Your task to perform on an android device: Open Google Image 0: 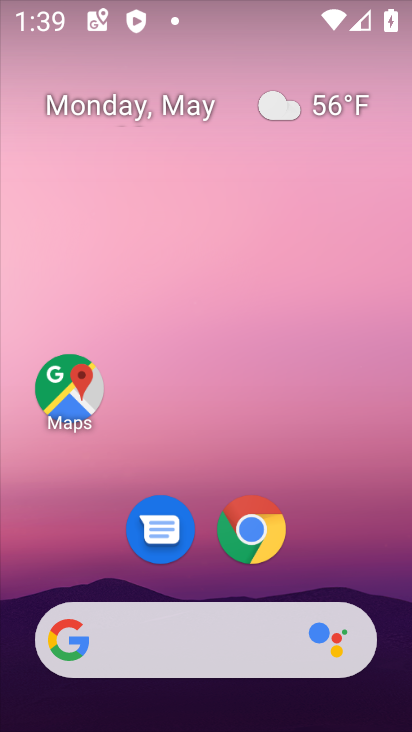
Step 0: drag from (315, 562) to (278, 25)
Your task to perform on an android device: Open Google Image 1: 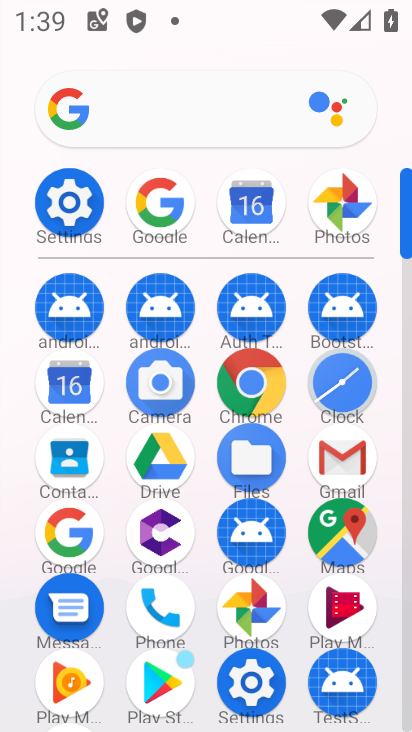
Step 1: click (57, 538)
Your task to perform on an android device: Open Google Image 2: 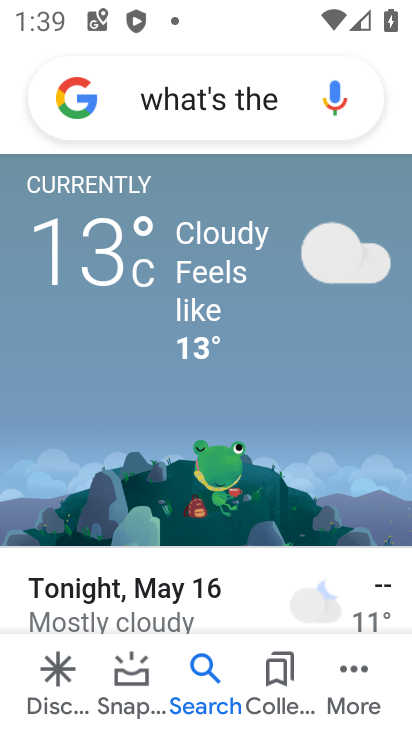
Step 2: task complete